Your task to perform on an android device: open app "Microsoft Excel" (install if not already installed) and enter user name: "kidnappers@icloud.com" and password: "Bessemerizes" Image 0: 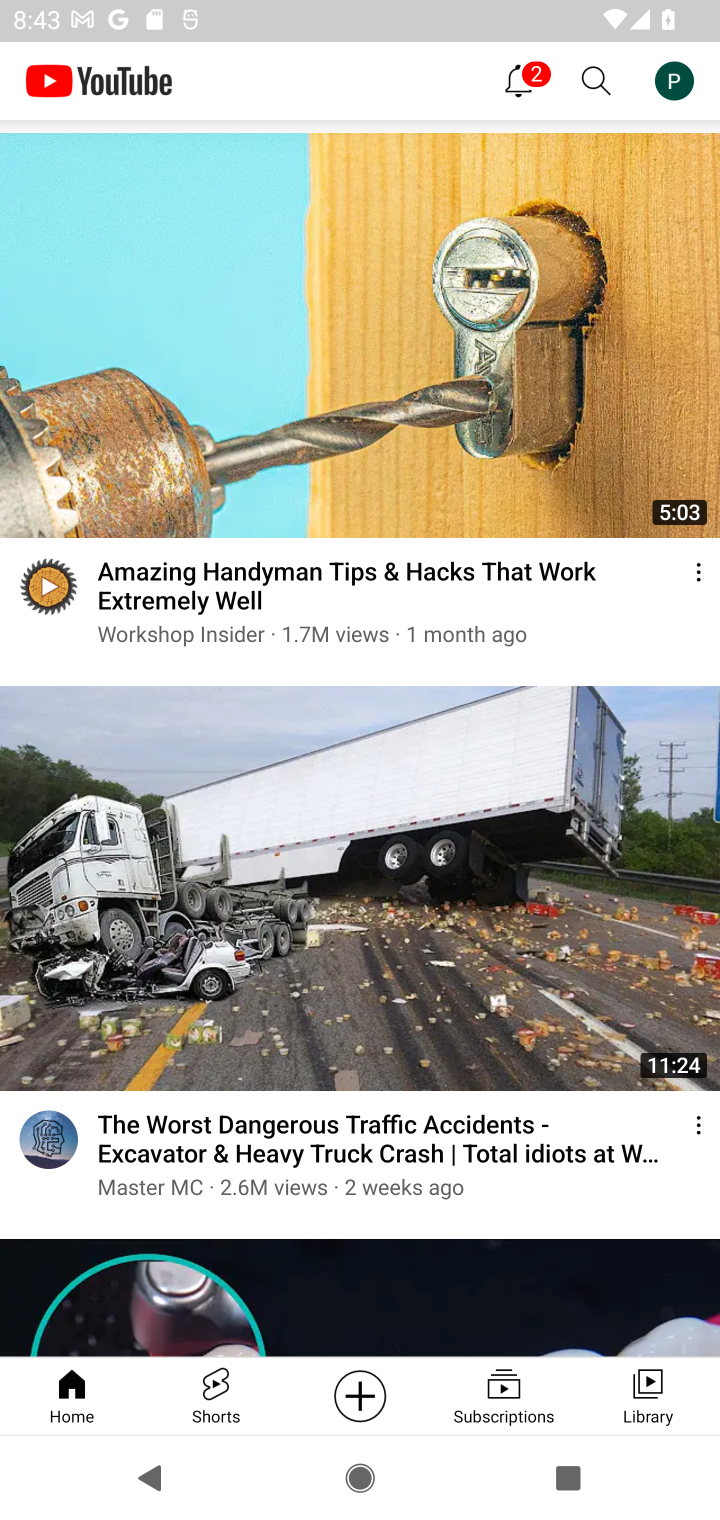
Step 0: press home button
Your task to perform on an android device: open app "Microsoft Excel" (install if not already installed) and enter user name: "kidnappers@icloud.com" and password: "Bessemerizes" Image 1: 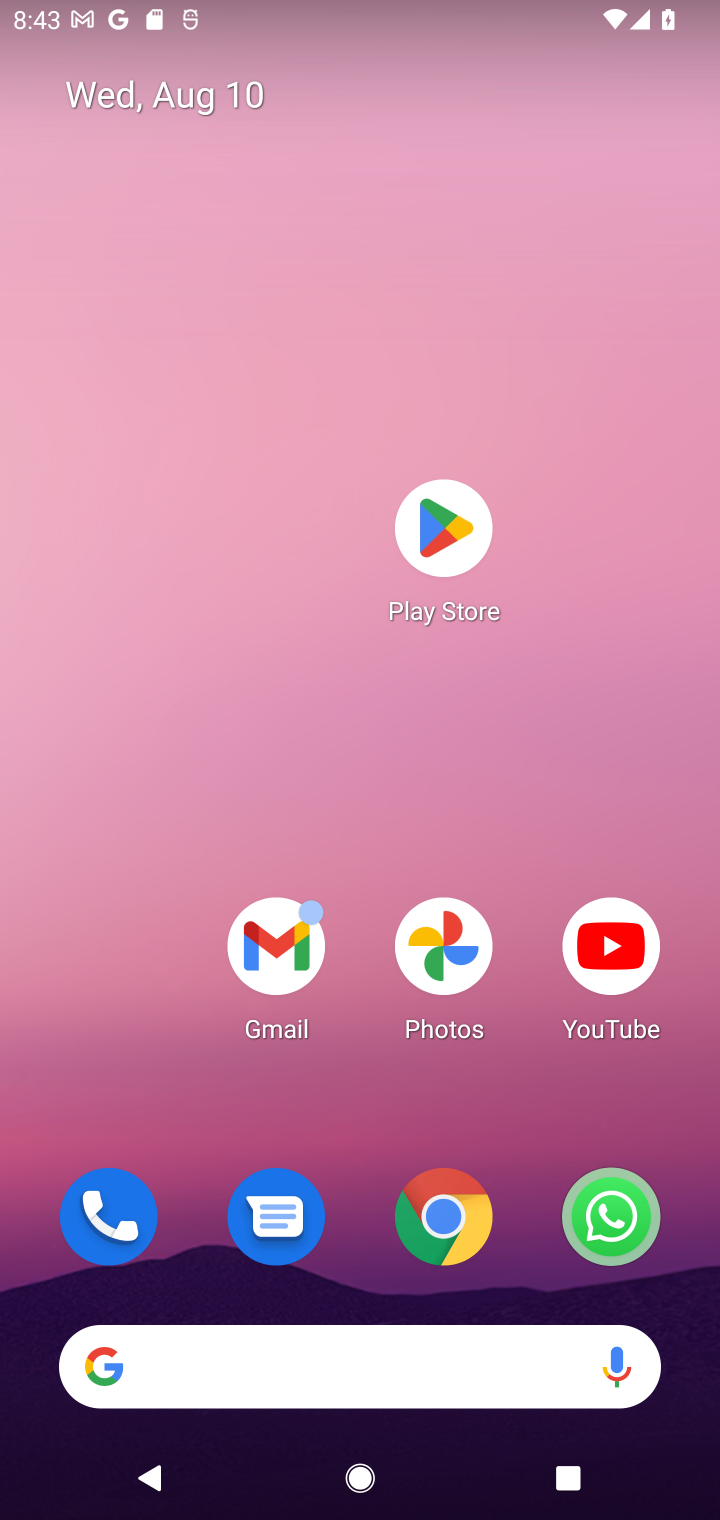
Step 1: click (444, 537)
Your task to perform on an android device: open app "Microsoft Excel" (install if not already installed) and enter user name: "kidnappers@icloud.com" and password: "Bessemerizes" Image 2: 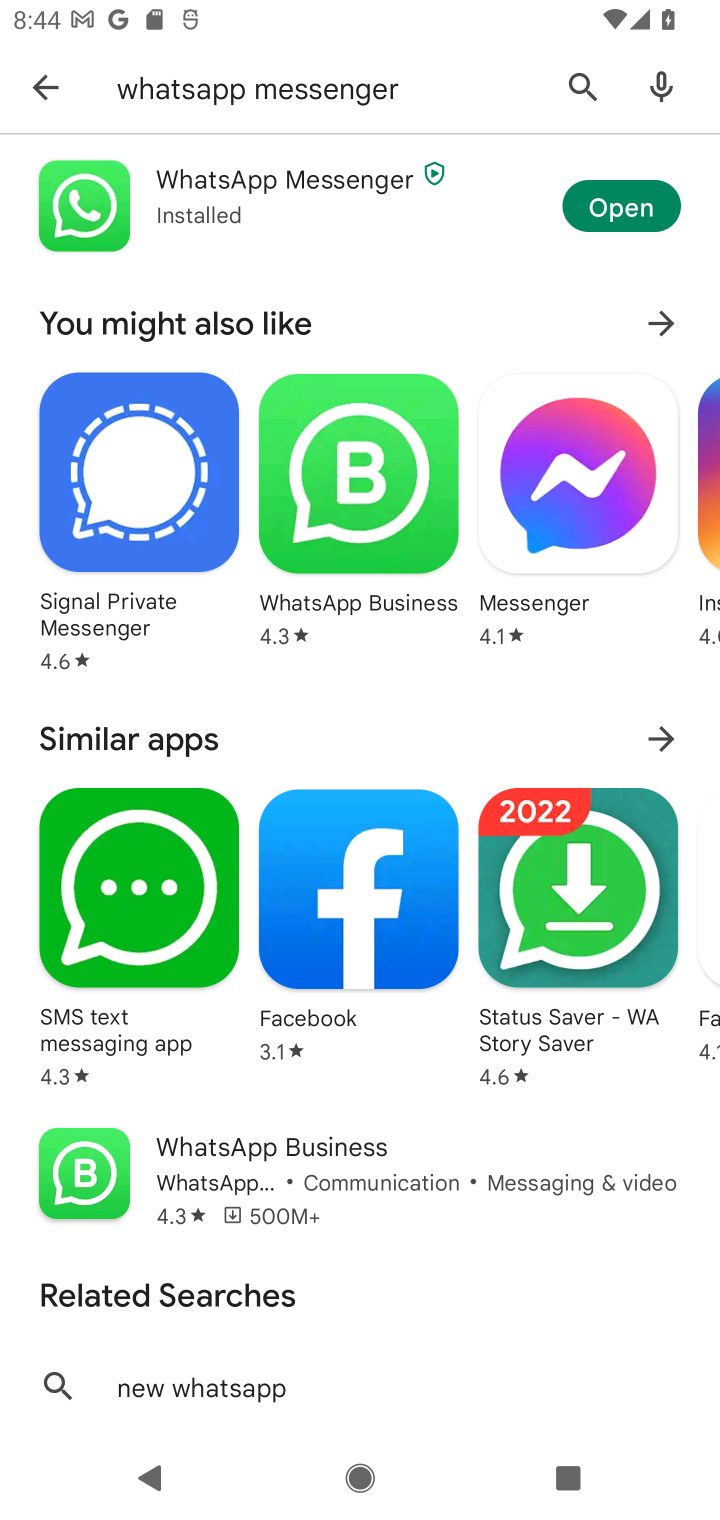
Step 2: click (569, 89)
Your task to perform on an android device: open app "Microsoft Excel" (install if not already installed) and enter user name: "kidnappers@icloud.com" and password: "Bessemerizes" Image 3: 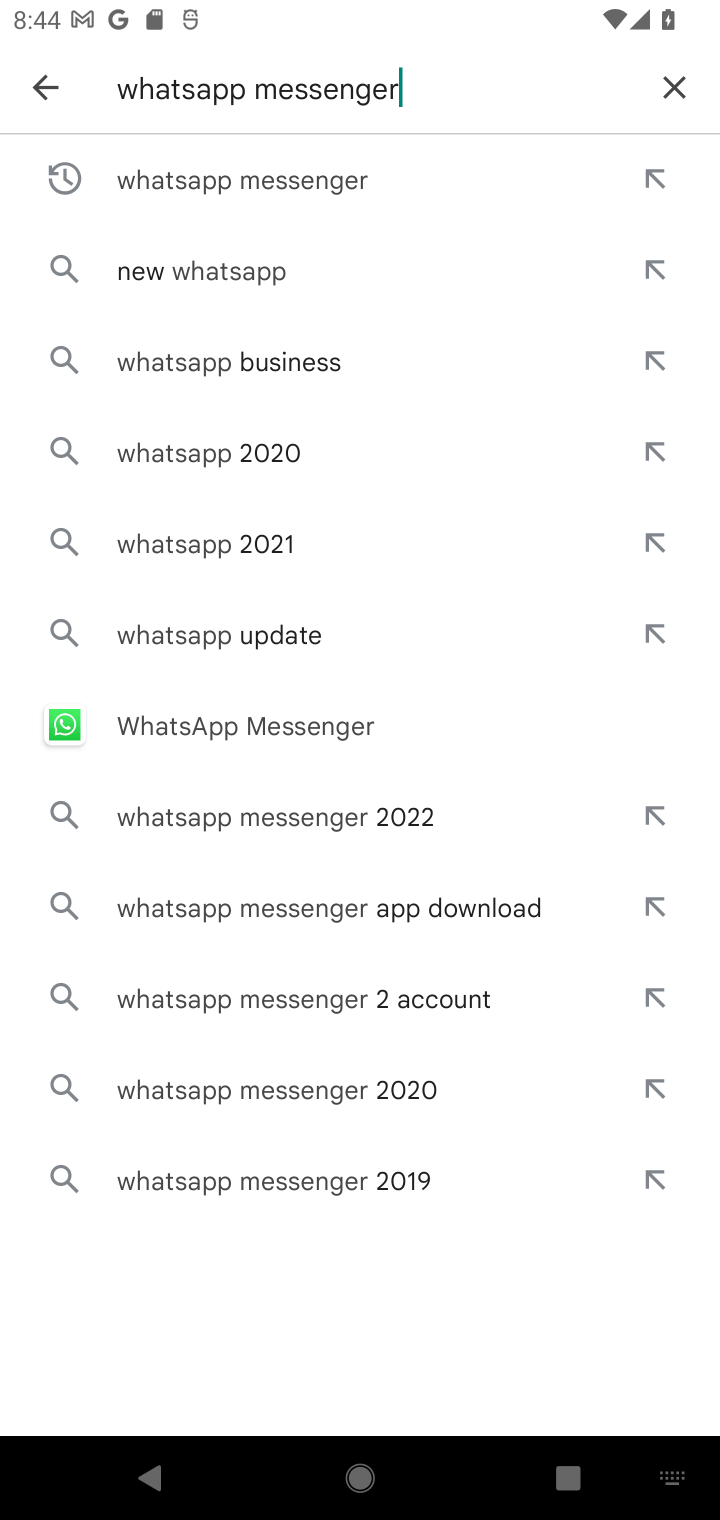
Step 3: click (662, 75)
Your task to perform on an android device: open app "Microsoft Excel" (install if not already installed) and enter user name: "kidnappers@icloud.com" and password: "Bessemerizes" Image 4: 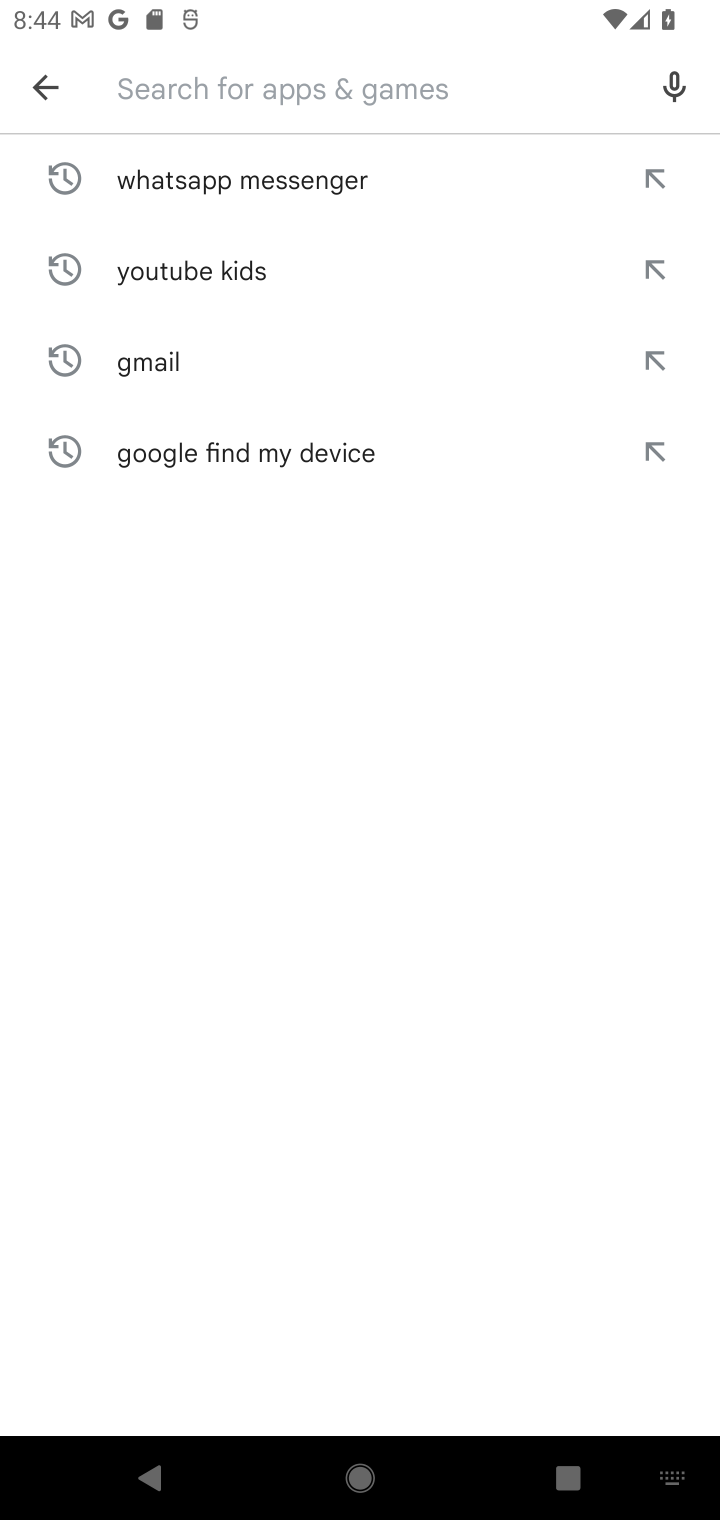
Step 4: type "Microsoft Excel"
Your task to perform on an android device: open app "Microsoft Excel" (install if not already installed) and enter user name: "kidnappers@icloud.com" and password: "Bessemerizes" Image 5: 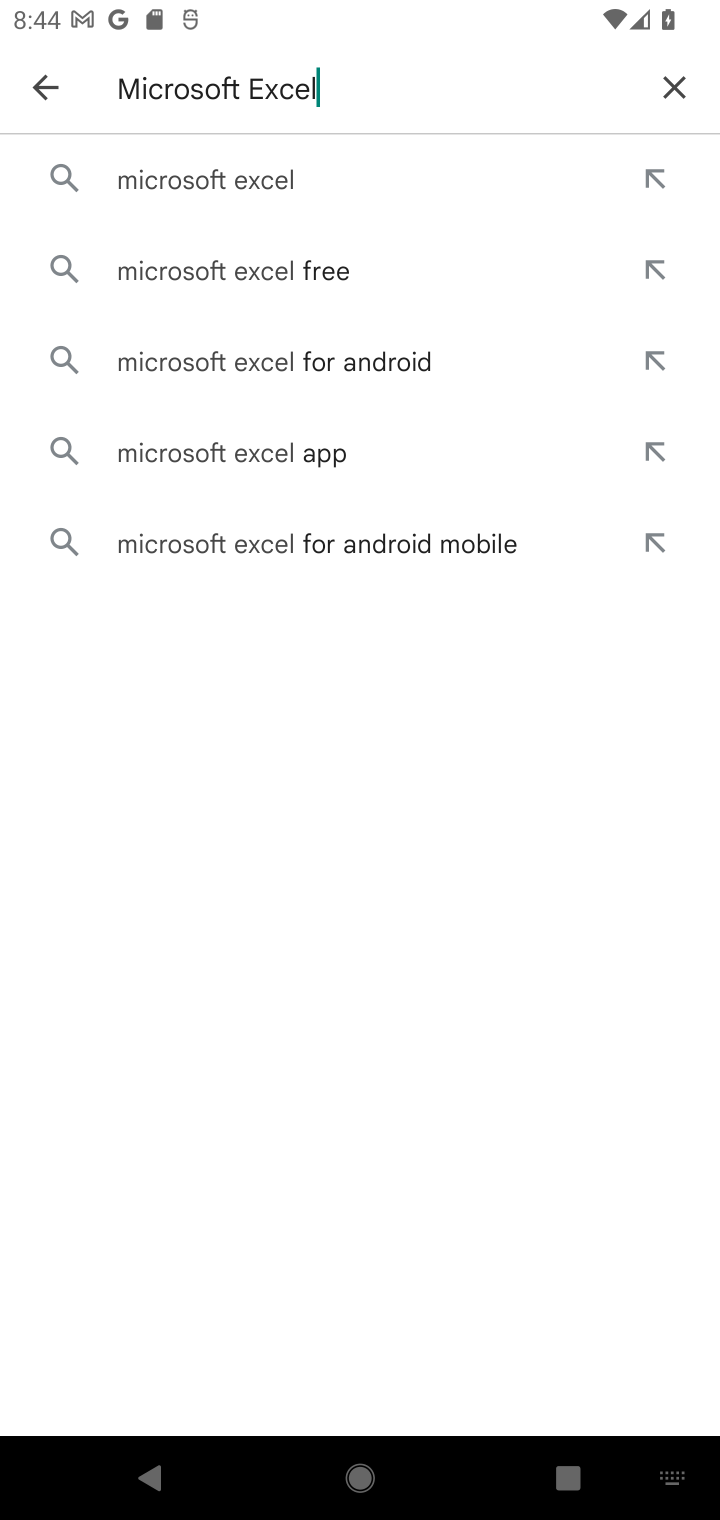
Step 5: click (262, 172)
Your task to perform on an android device: open app "Microsoft Excel" (install if not already installed) and enter user name: "kidnappers@icloud.com" and password: "Bessemerizes" Image 6: 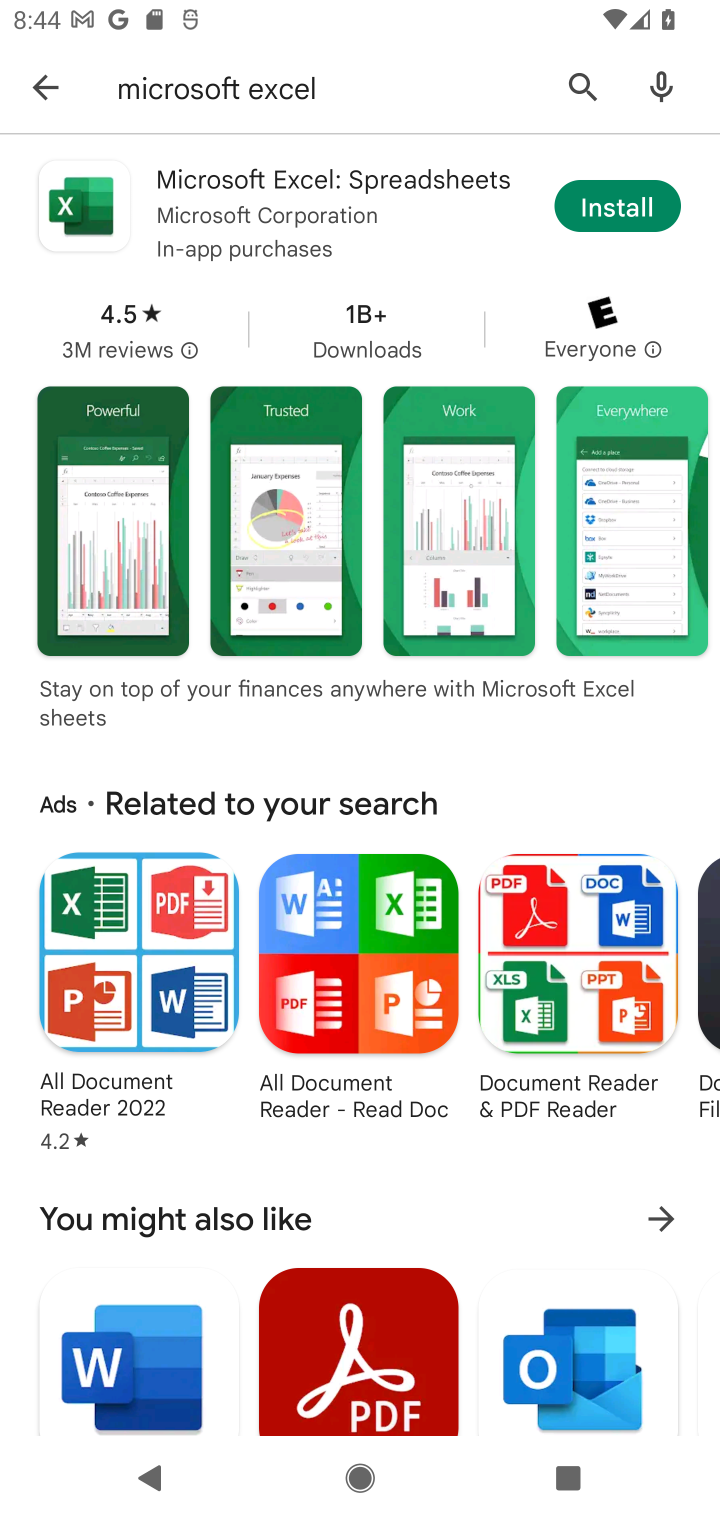
Step 6: click (621, 202)
Your task to perform on an android device: open app "Microsoft Excel" (install if not already installed) and enter user name: "kidnappers@icloud.com" and password: "Bessemerizes" Image 7: 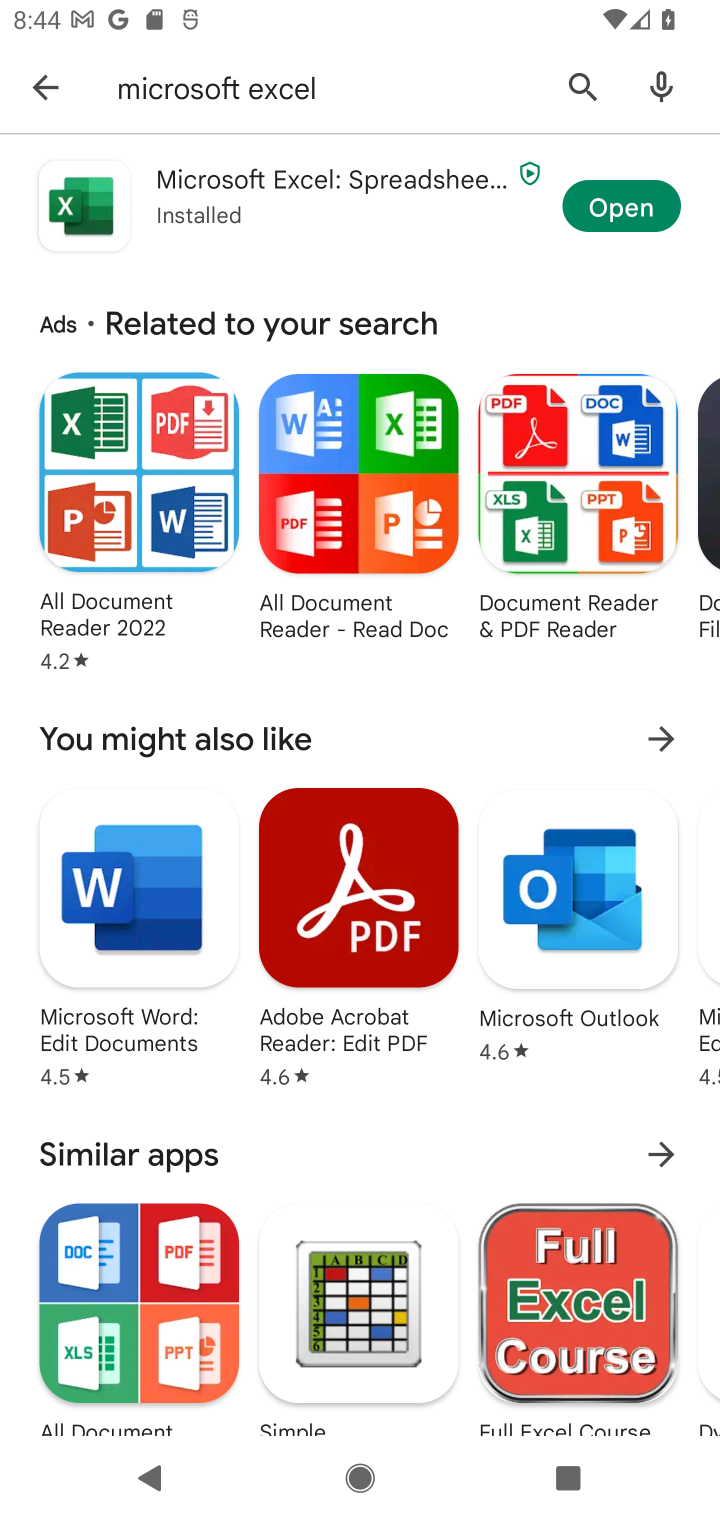
Step 7: click (636, 212)
Your task to perform on an android device: open app "Microsoft Excel" (install if not already installed) and enter user name: "kidnappers@icloud.com" and password: "Bessemerizes" Image 8: 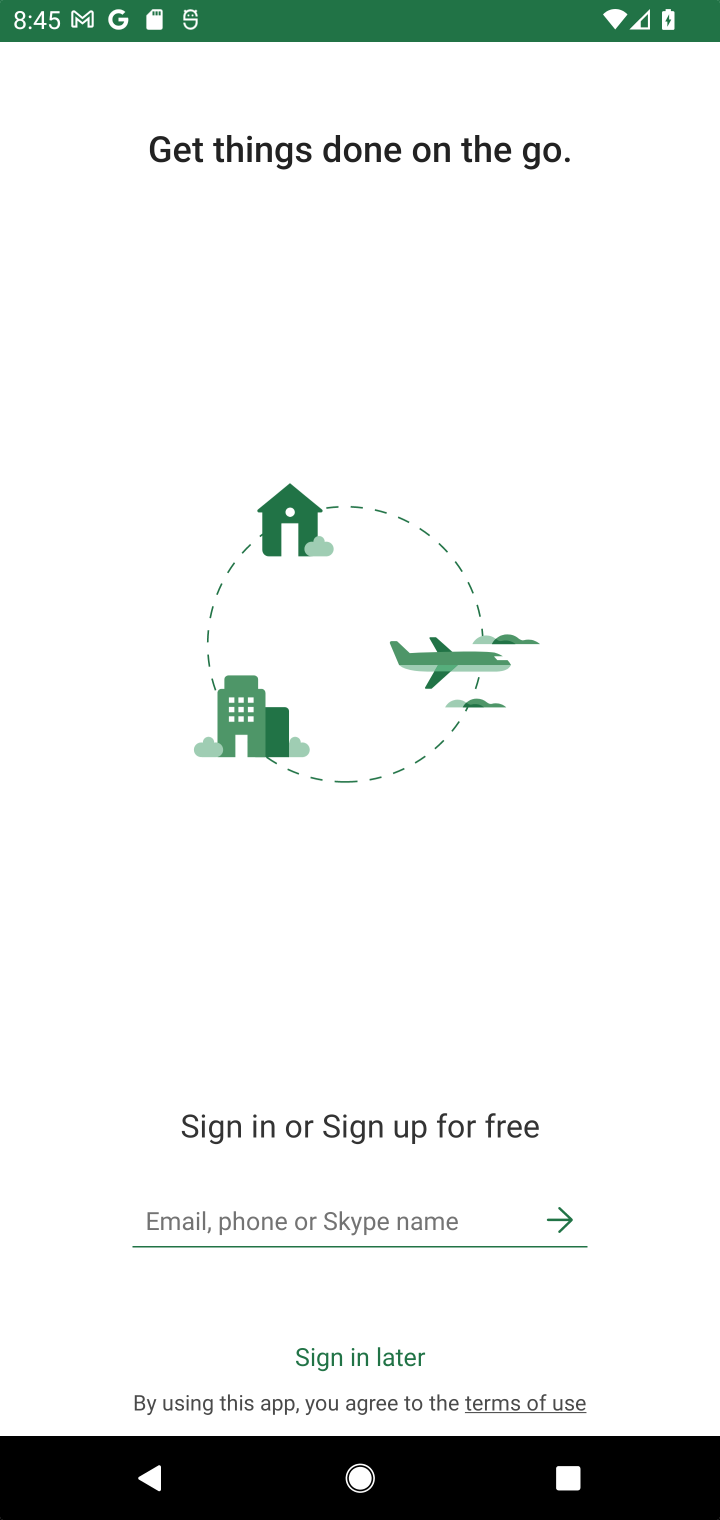
Step 8: click (360, 1201)
Your task to perform on an android device: open app "Microsoft Excel" (install if not already installed) and enter user name: "kidnappers@icloud.com" and password: "Bessemerizes" Image 9: 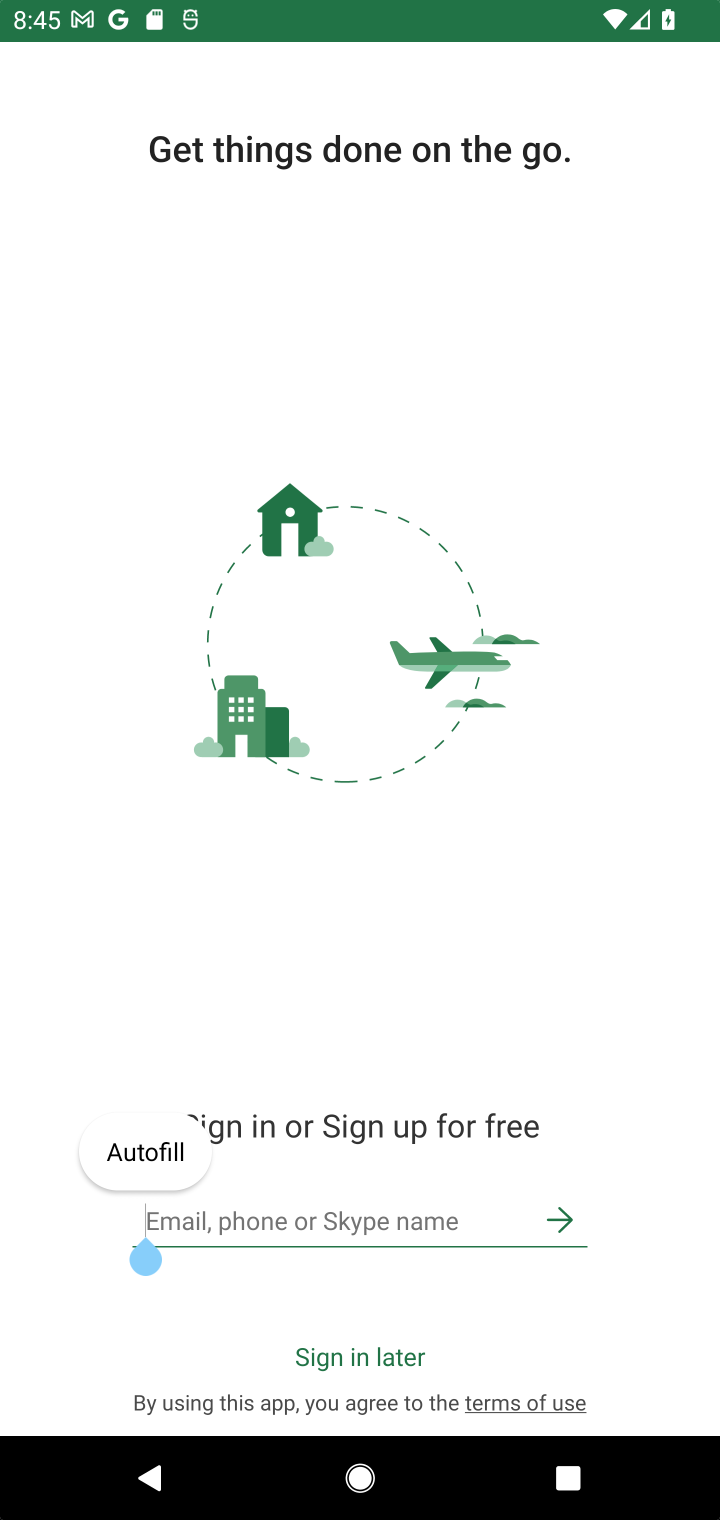
Step 9: click (336, 1215)
Your task to perform on an android device: open app "Microsoft Excel" (install if not already installed) and enter user name: "kidnappers@icloud.com" and password: "Bessemerizes" Image 10: 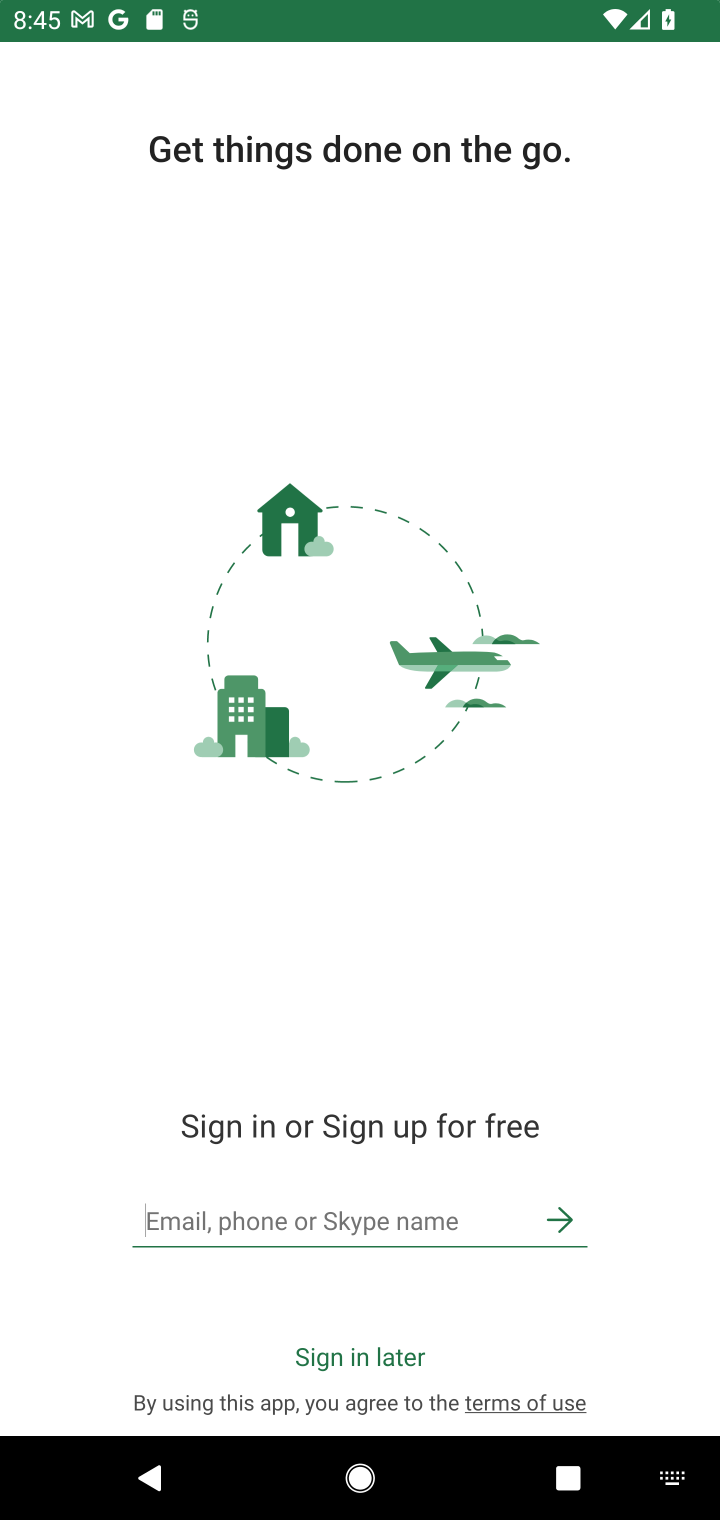
Step 10: click (421, 1188)
Your task to perform on an android device: open app "Microsoft Excel" (install if not already installed) and enter user name: "kidnappers@icloud.com" and password: "Bessemerizes" Image 11: 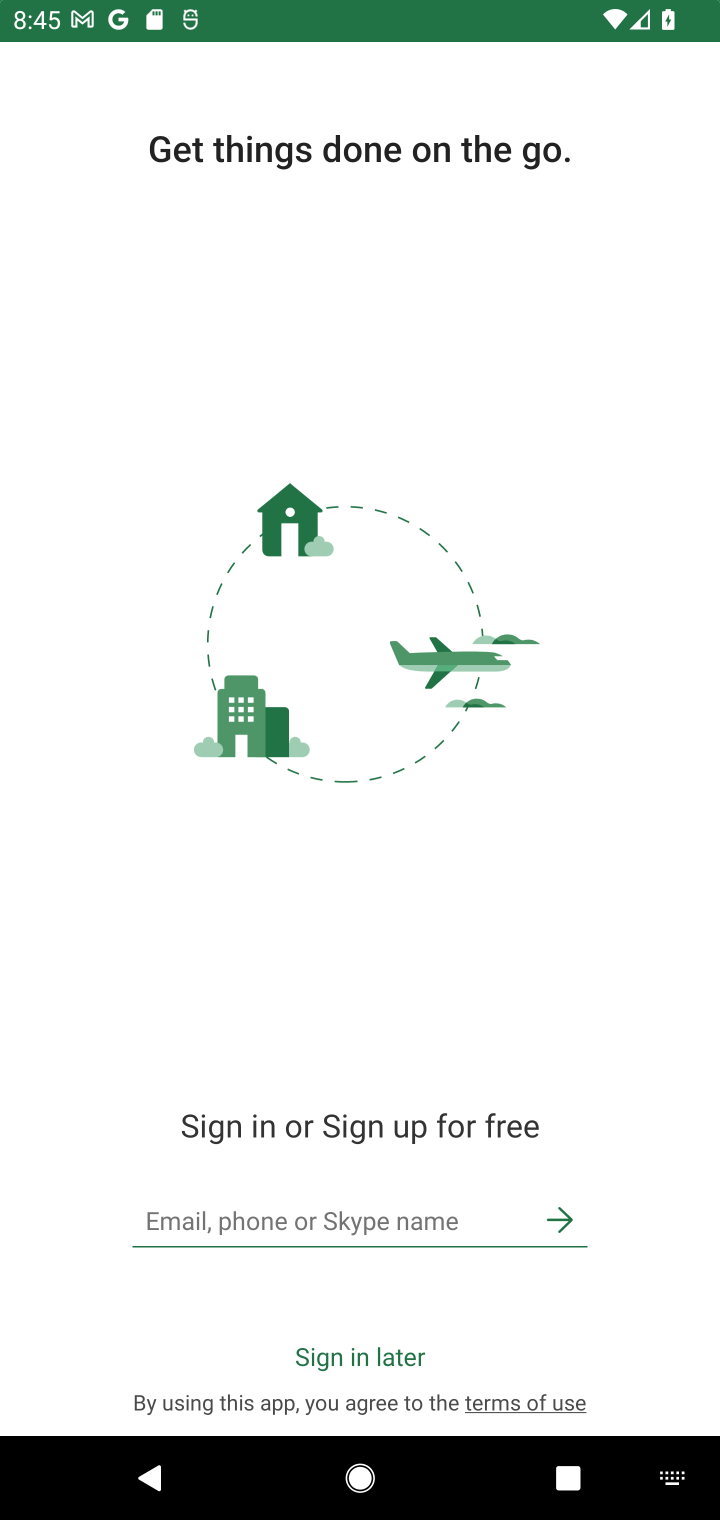
Step 11: click (152, 1224)
Your task to perform on an android device: open app "Microsoft Excel" (install if not already installed) and enter user name: "kidnappers@icloud.com" and password: "Bessemerizes" Image 12: 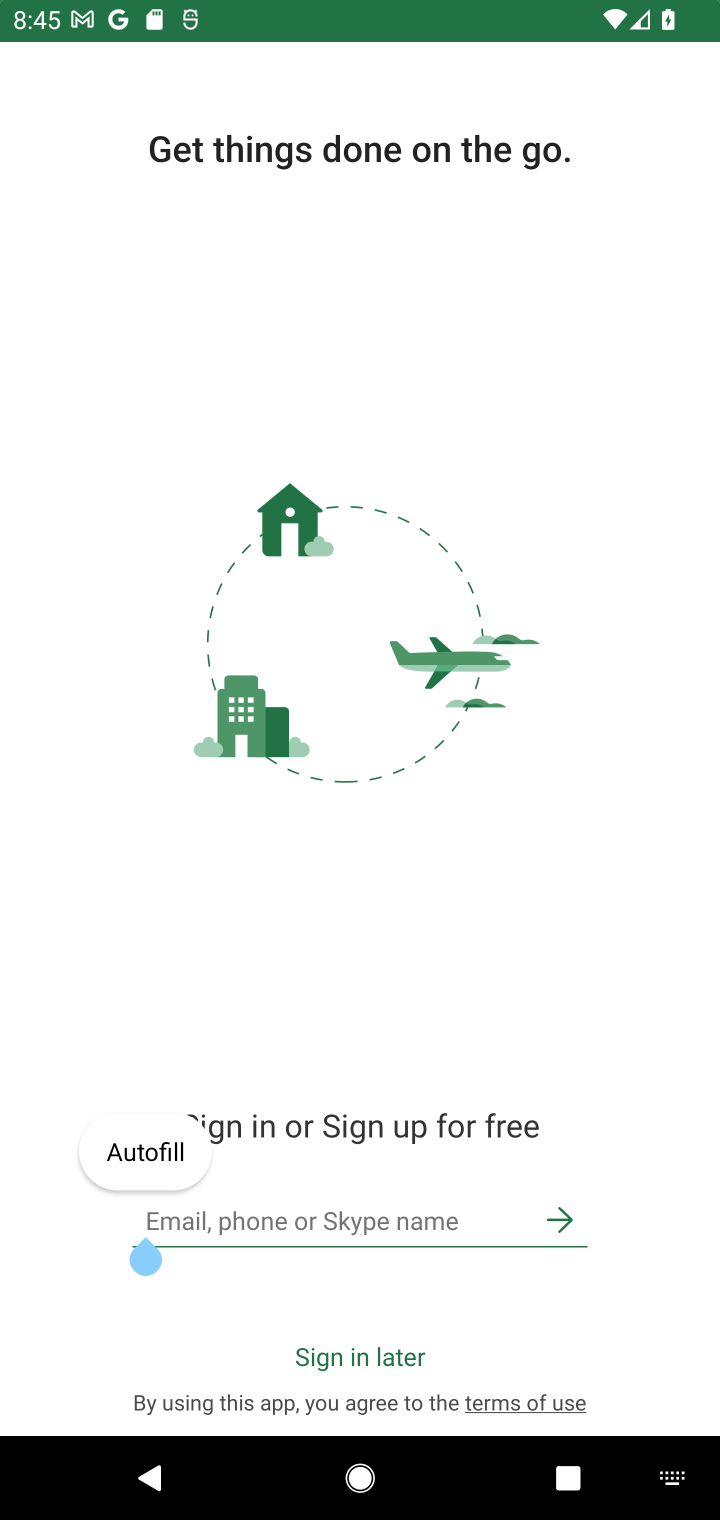
Step 12: click (346, 1215)
Your task to perform on an android device: open app "Microsoft Excel" (install if not already installed) and enter user name: "kidnappers@icloud.com" and password: "Bessemerizes" Image 13: 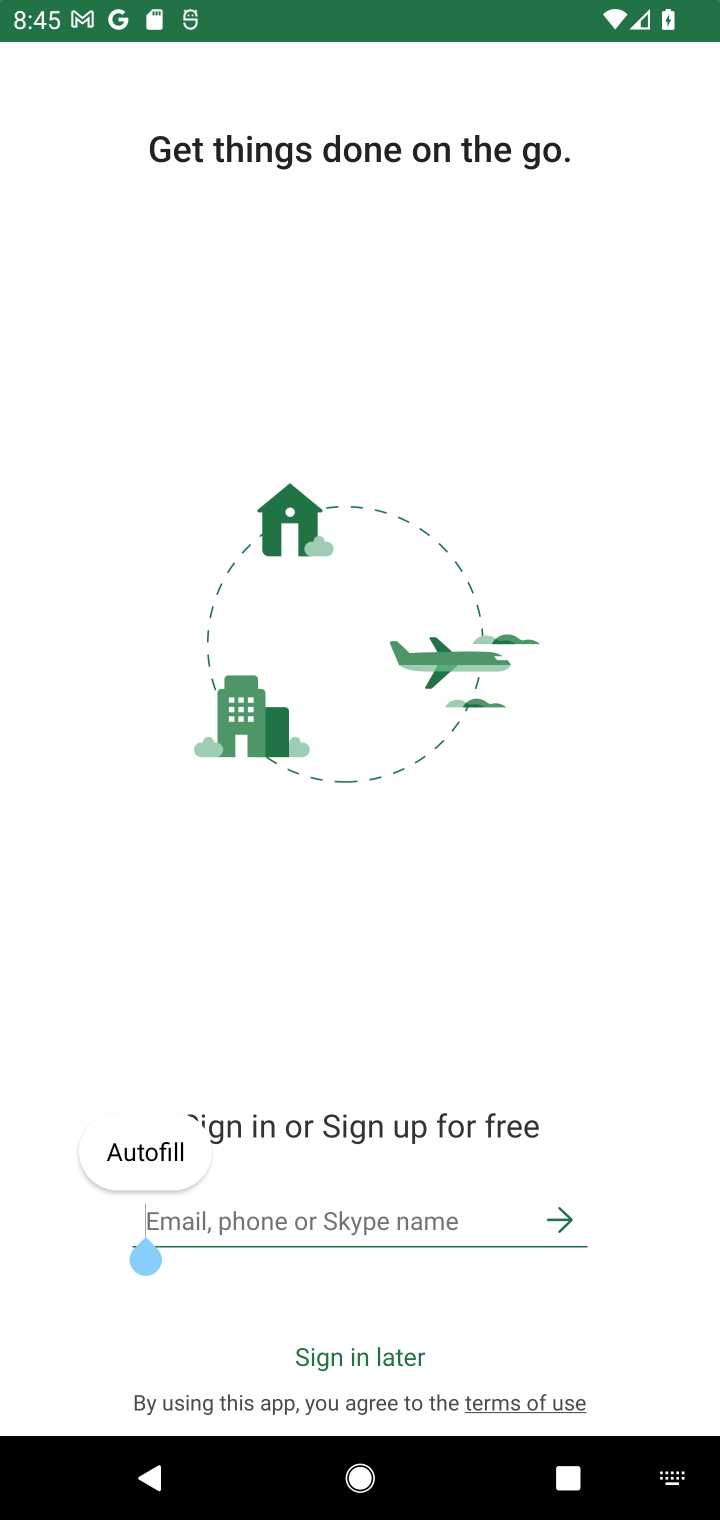
Step 13: click (155, 1161)
Your task to perform on an android device: open app "Microsoft Excel" (install if not already installed) and enter user name: "kidnappers@icloud.com" and password: "Bessemerizes" Image 14: 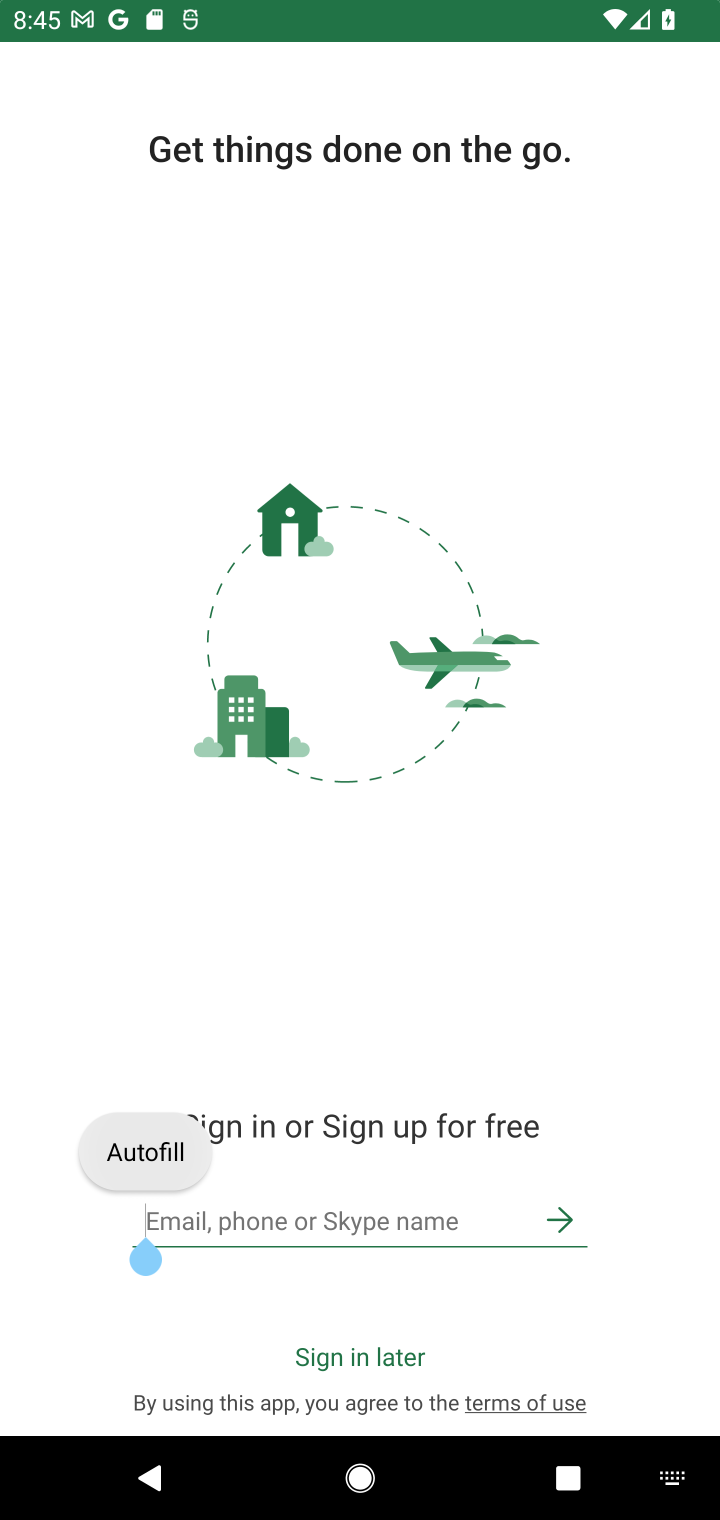
Step 14: click (284, 1212)
Your task to perform on an android device: open app "Microsoft Excel" (install if not already installed) and enter user name: "kidnappers@icloud.com" and password: "Bessemerizes" Image 15: 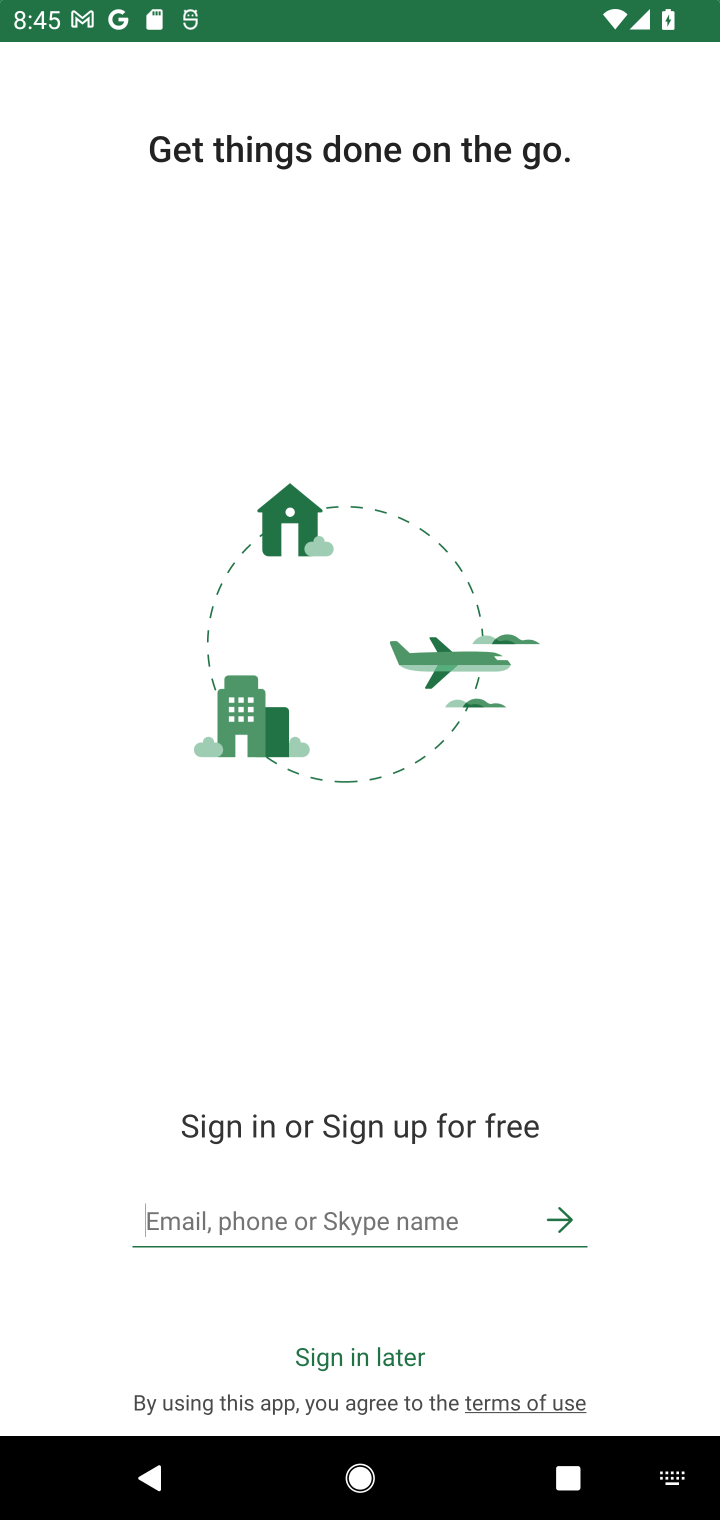
Step 15: click (173, 1200)
Your task to perform on an android device: open app "Microsoft Excel" (install if not already installed) and enter user name: "kidnappers@icloud.com" and password: "Bessemerizes" Image 16: 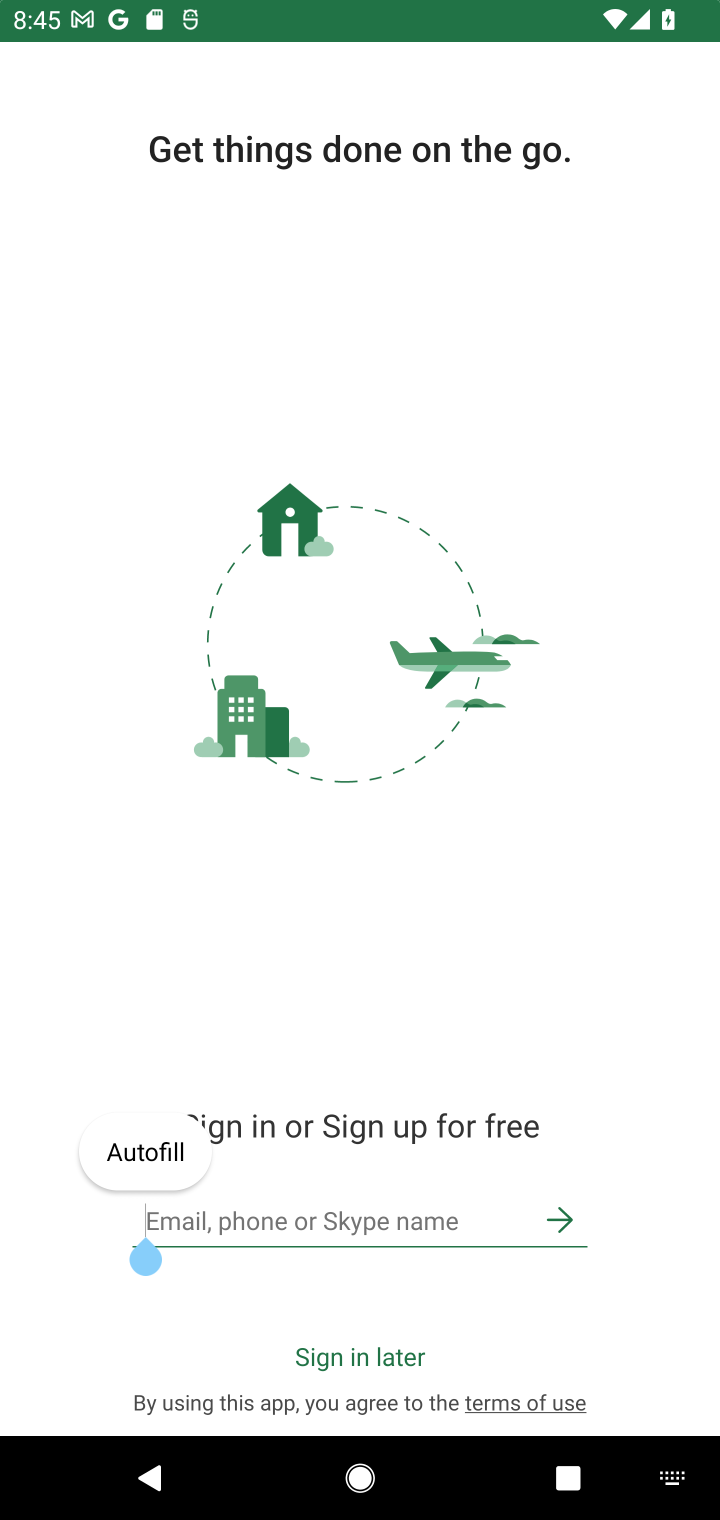
Step 16: click (336, 1221)
Your task to perform on an android device: open app "Microsoft Excel" (install if not already installed) and enter user name: "kidnappers@icloud.com" and password: "Bessemerizes" Image 17: 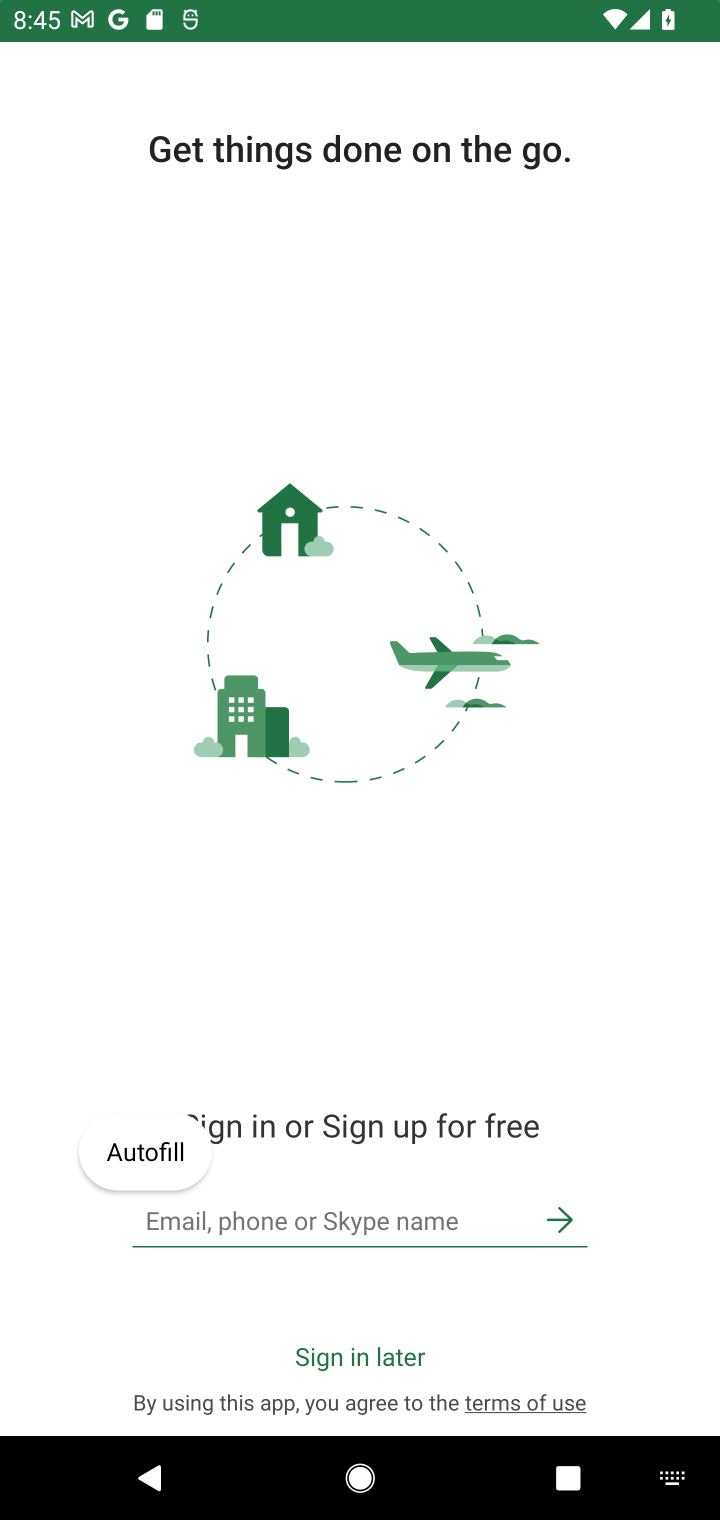
Step 17: type "kidnappers@icloud.com"
Your task to perform on an android device: open app "Microsoft Excel" (install if not already installed) and enter user name: "kidnappers@icloud.com" and password: "Bessemerizes" Image 18: 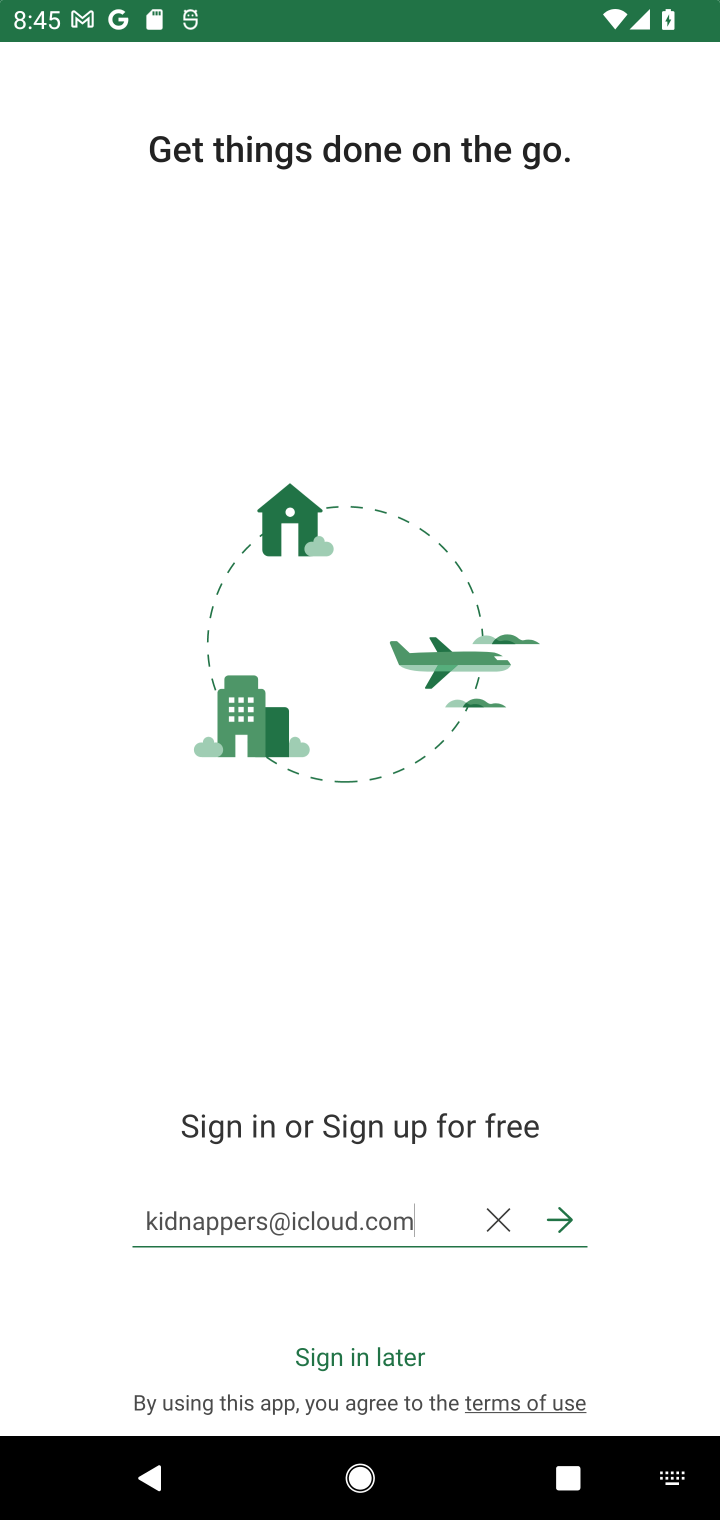
Step 18: click (555, 1216)
Your task to perform on an android device: open app "Microsoft Excel" (install if not already installed) and enter user name: "kidnappers@icloud.com" and password: "Bessemerizes" Image 19: 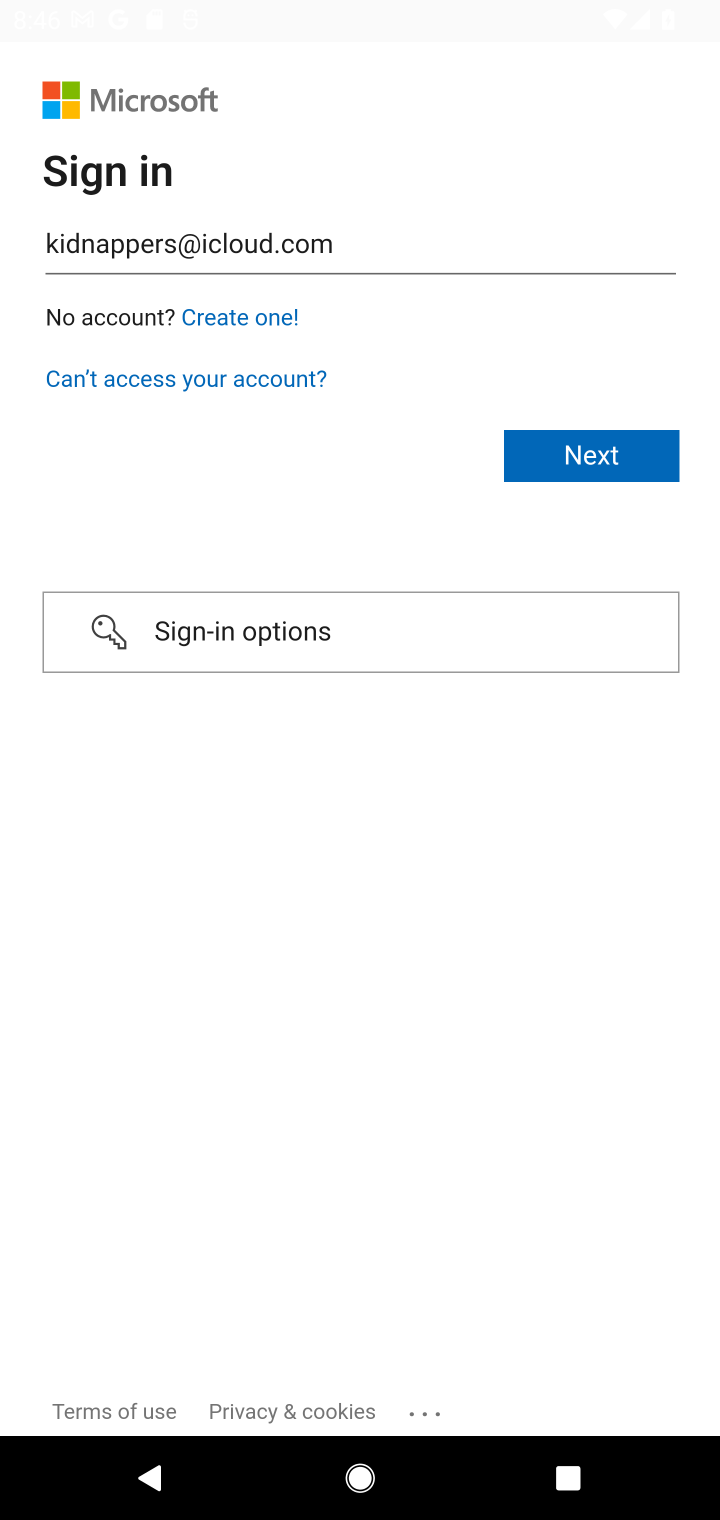
Step 19: click (556, 449)
Your task to perform on an android device: open app "Microsoft Excel" (install if not already installed) and enter user name: "kidnappers@icloud.com" and password: "Bessemerizes" Image 20: 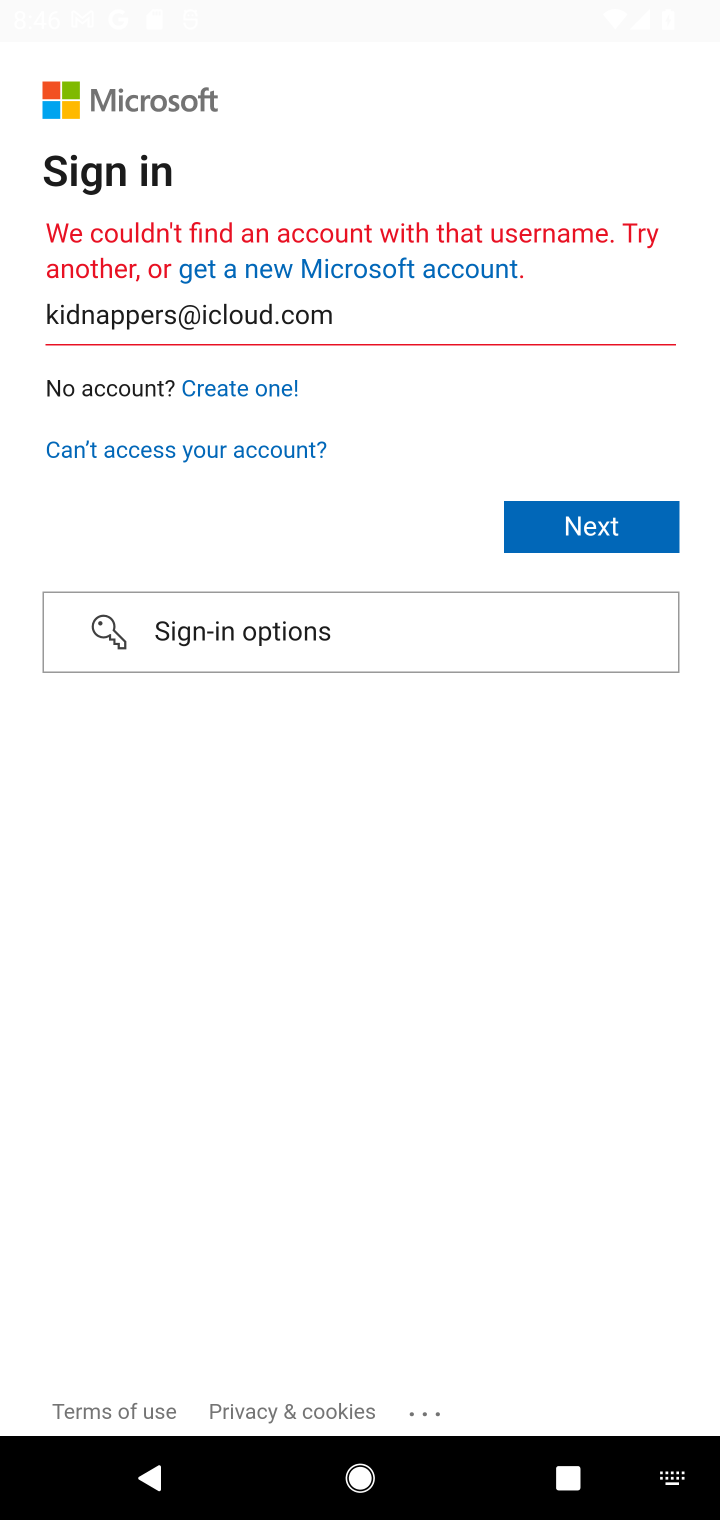
Step 20: task complete